Your task to perform on an android device: Open accessibility settings Image 0: 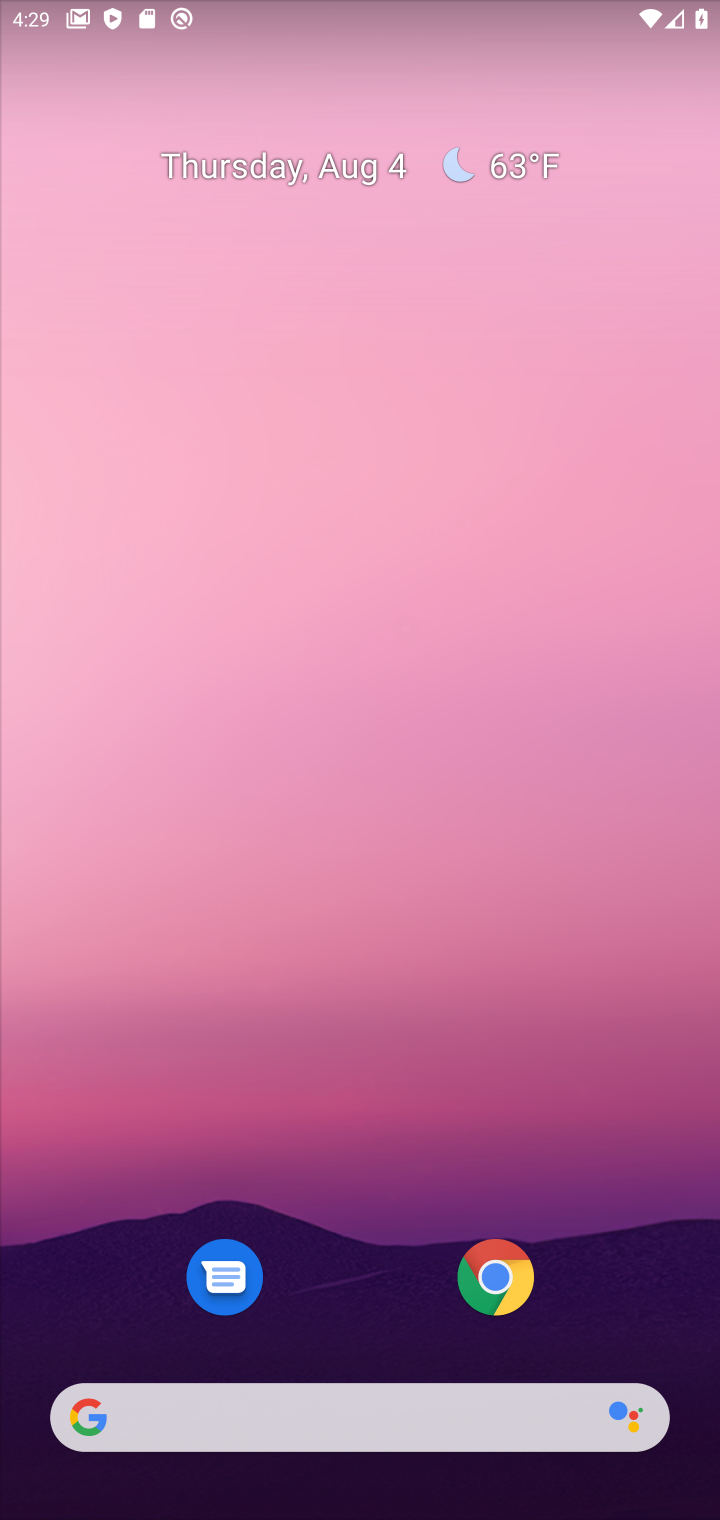
Step 0: drag from (406, 1261) to (451, 374)
Your task to perform on an android device: Open accessibility settings Image 1: 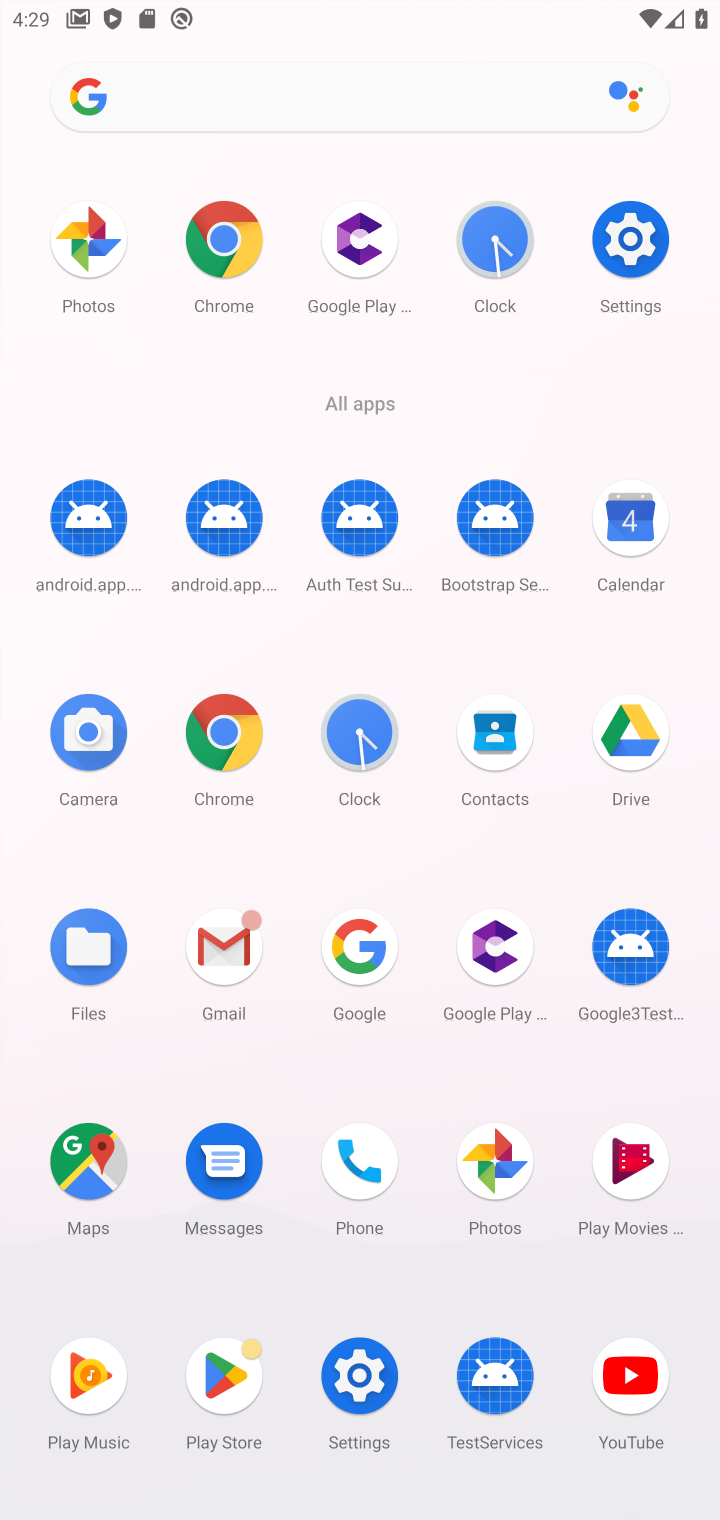
Step 1: click (633, 241)
Your task to perform on an android device: Open accessibility settings Image 2: 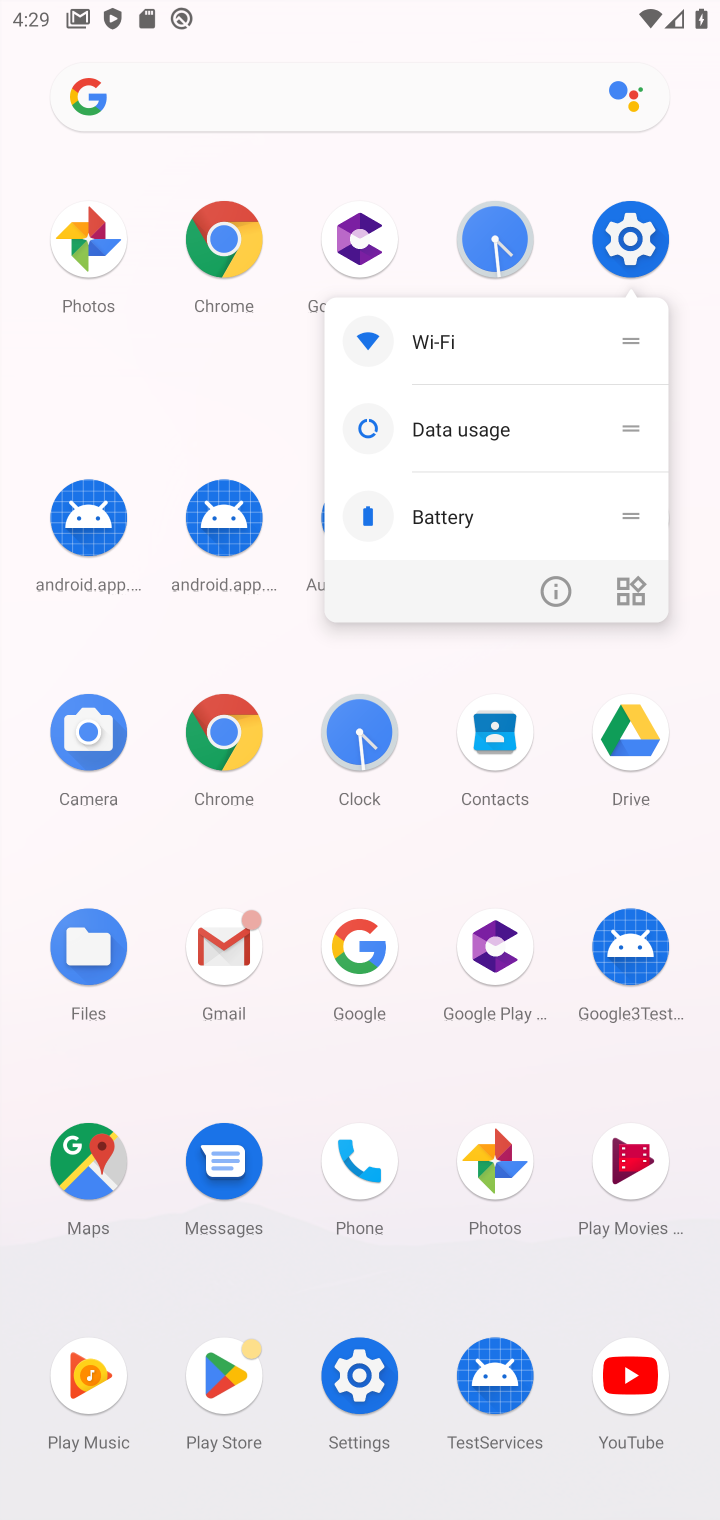
Step 2: click (633, 246)
Your task to perform on an android device: Open accessibility settings Image 3: 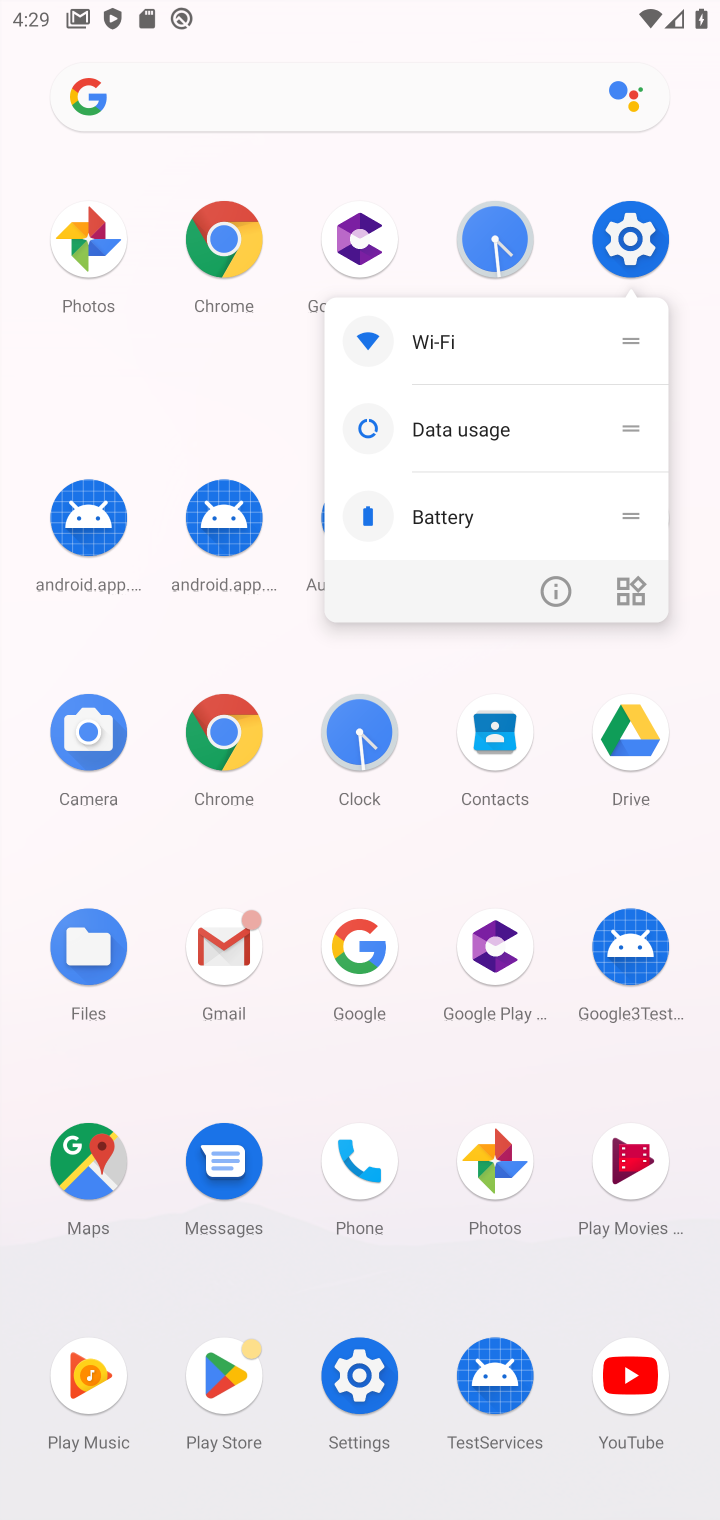
Step 3: click (633, 246)
Your task to perform on an android device: Open accessibility settings Image 4: 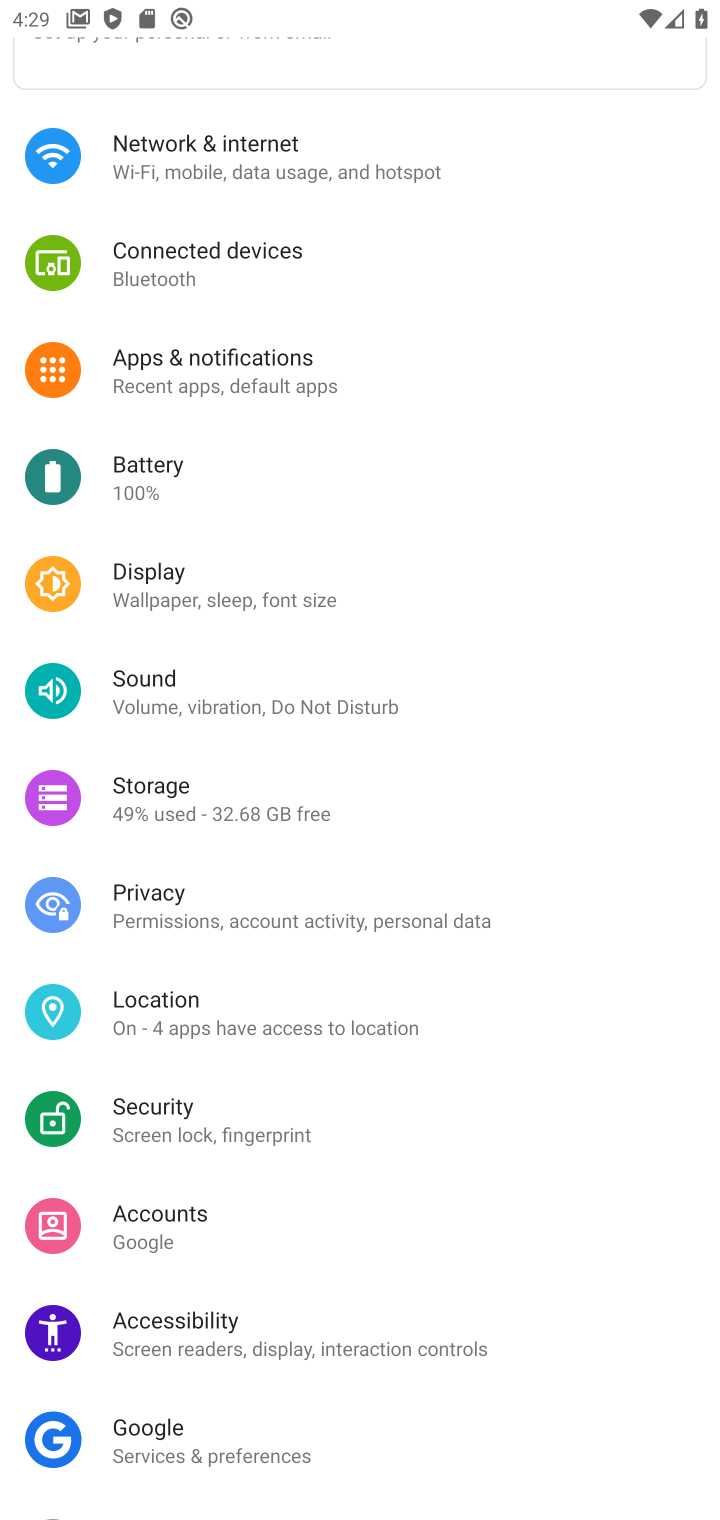
Step 4: click (213, 1310)
Your task to perform on an android device: Open accessibility settings Image 5: 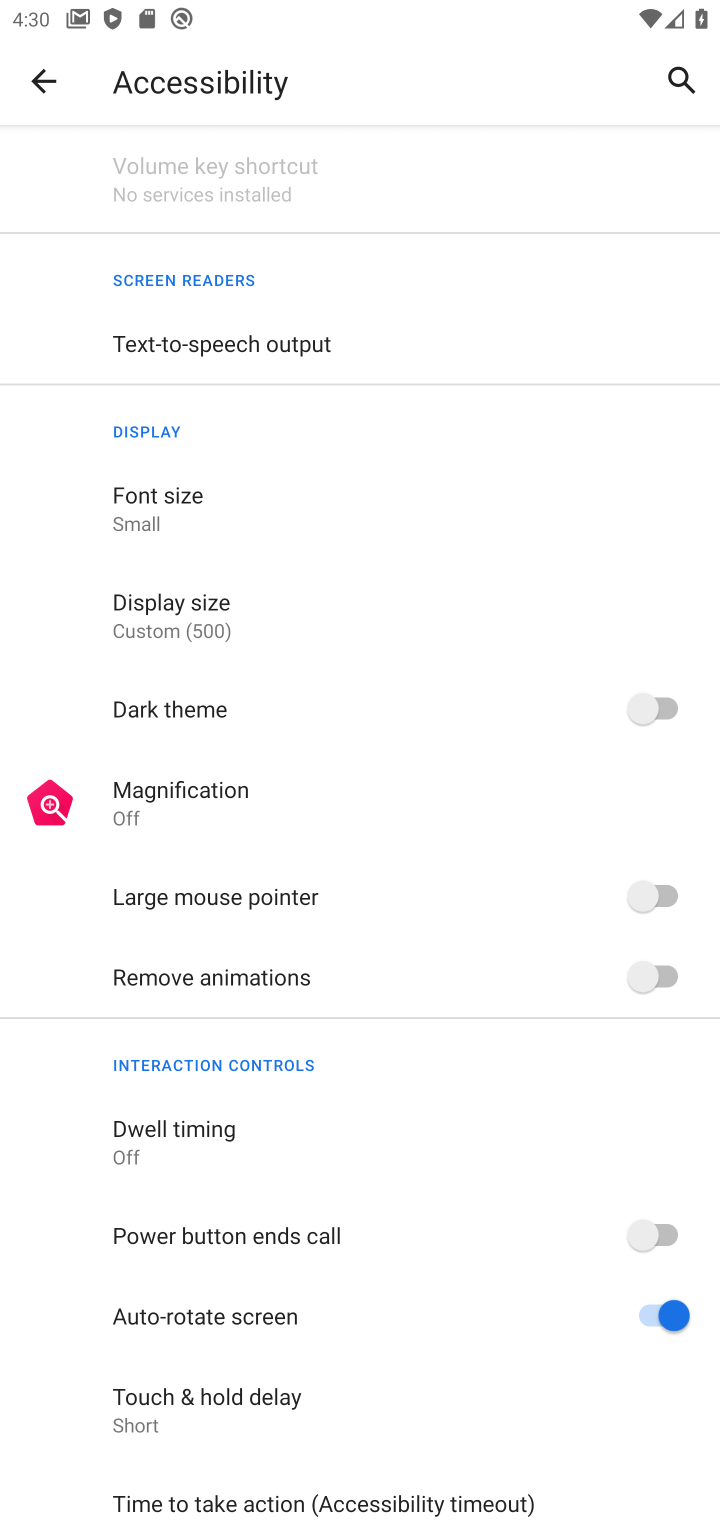
Step 5: task complete